Your task to perform on an android device: Go to ESPN.com Image 0: 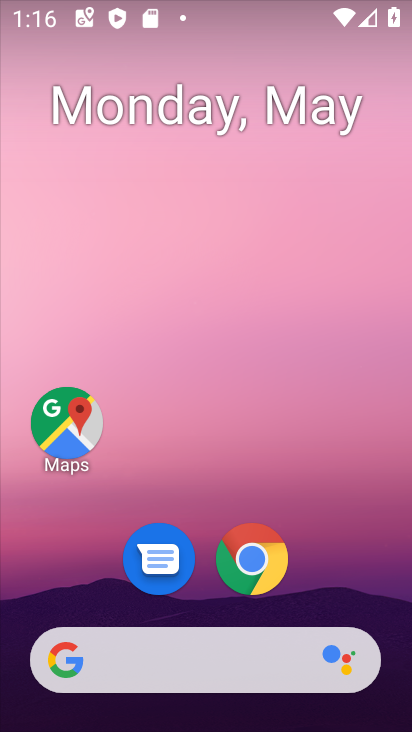
Step 0: click (175, 663)
Your task to perform on an android device: Go to ESPN.com Image 1: 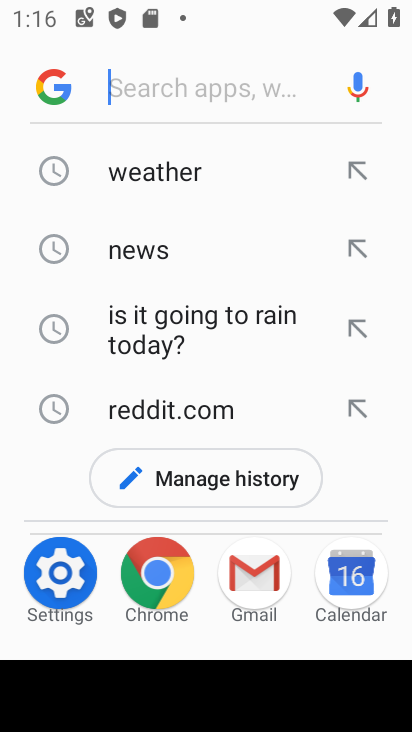
Step 1: type "espn.com"
Your task to perform on an android device: Go to ESPN.com Image 2: 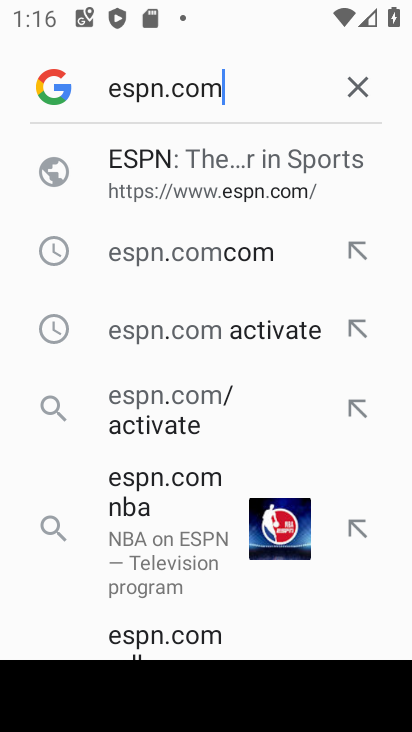
Step 2: click (276, 152)
Your task to perform on an android device: Go to ESPN.com Image 3: 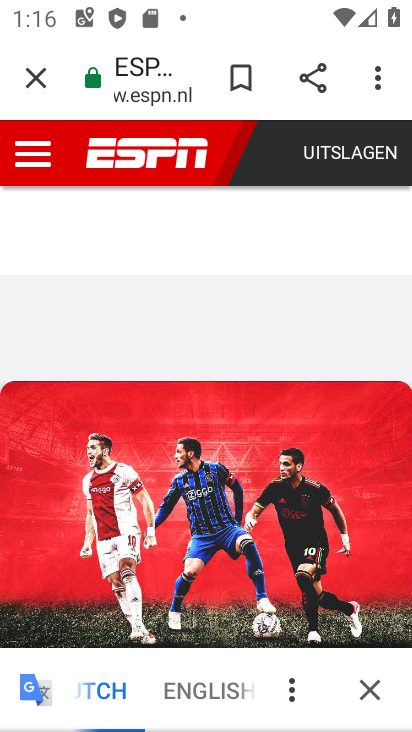
Step 3: task complete